Your task to perform on an android device: Open settings Image 0: 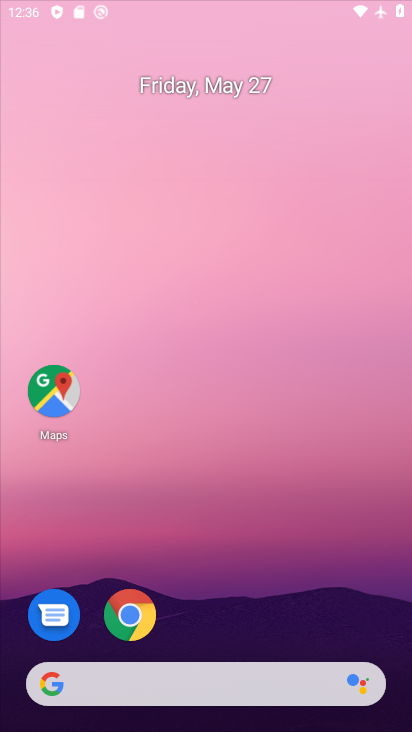
Step 0: press home button
Your task to perform on an android device: Open settings Image 1: 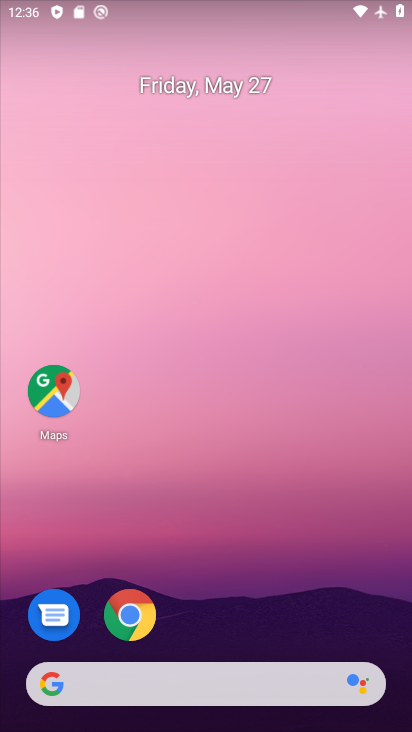
Step 1: drag from (290, 620) to (304, 263)
Your task to perform on an android device: Open settings Image 2: 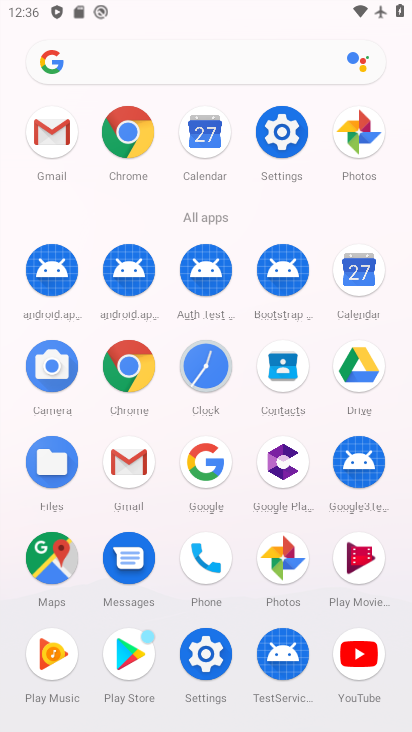
Step 2: click (285, 145)
Your task to perform on an android device: Open settings Image 3: 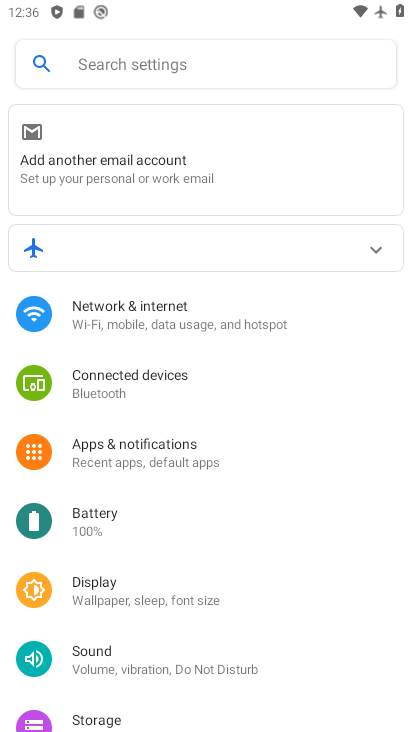
Step 3: task complete